Your task to perform on an android device: change keyboard looks Image 0: 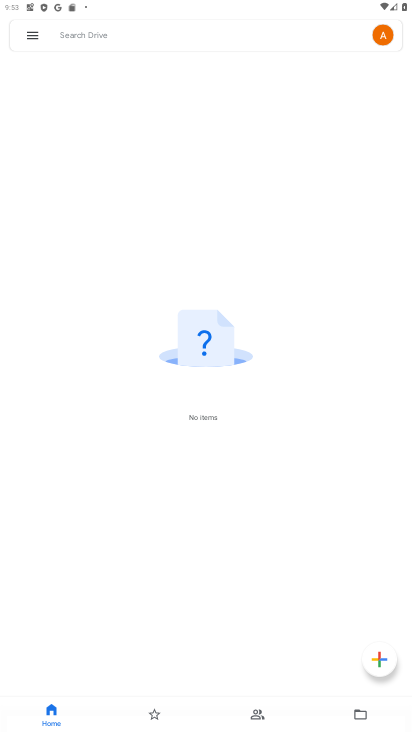
Step 0: press home button
Your task to perform on an android device: change keyboard looks Image 1: 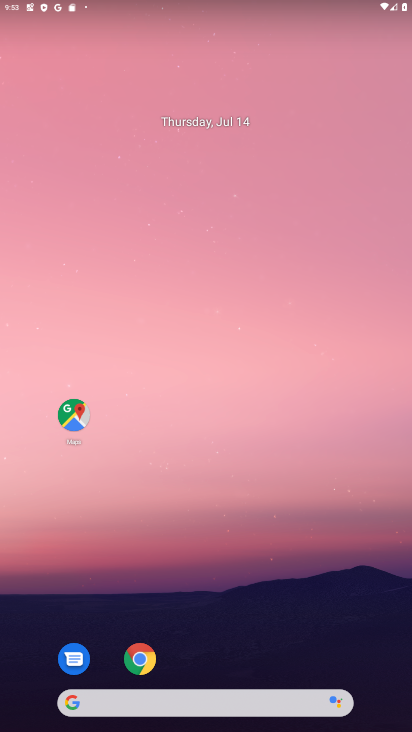
Step 1: drag from (267, 570) to (252, 3)
Your task to perform on an android device: change keyboard looks Image 2: 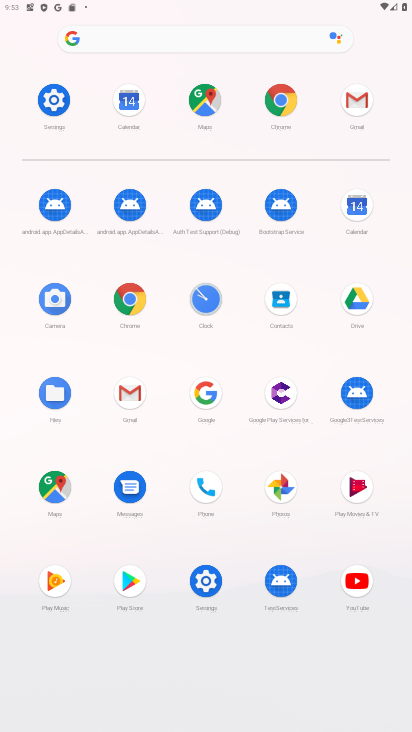
Step 2: click (56, 101)
Your task to perform on an android device: change keyboard looks Image 3: 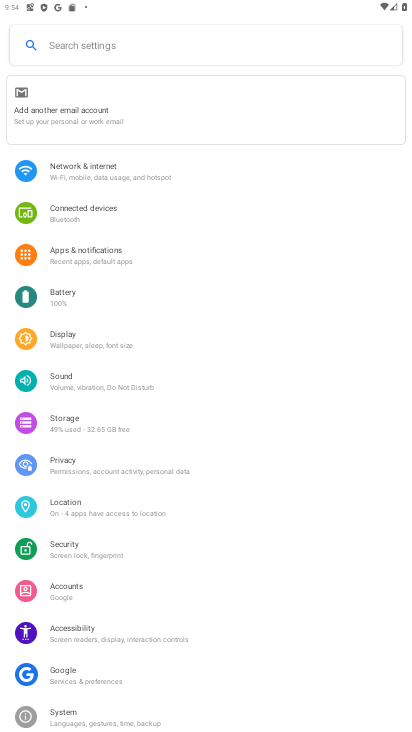
Step 3: drag from (106, 582) to (137, 226)
Your task to perform on an android device: change keyboard looks Image 4: 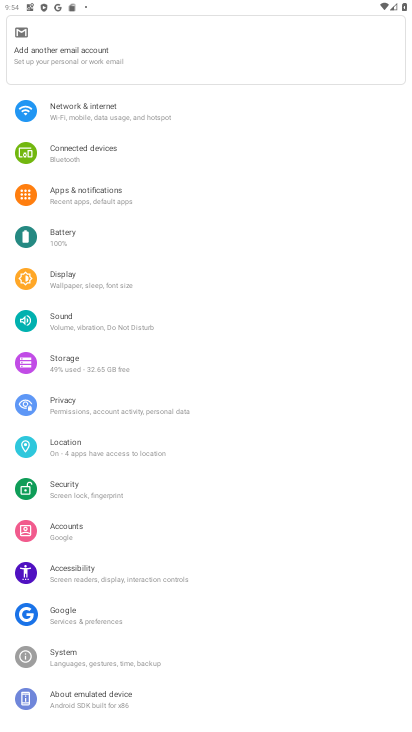
Step 4: click (66, 666)
Your task to perform on an android device: change keyboard looks Image 5: 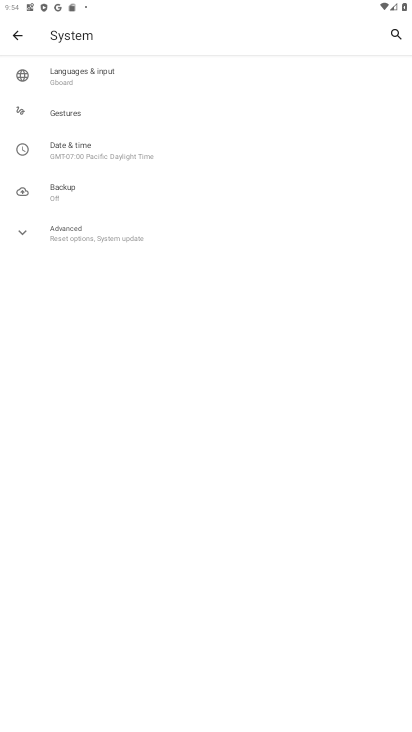
Step 5: click (95, 68)
Your task to perform on an android device: change keyboard looks Image 6: 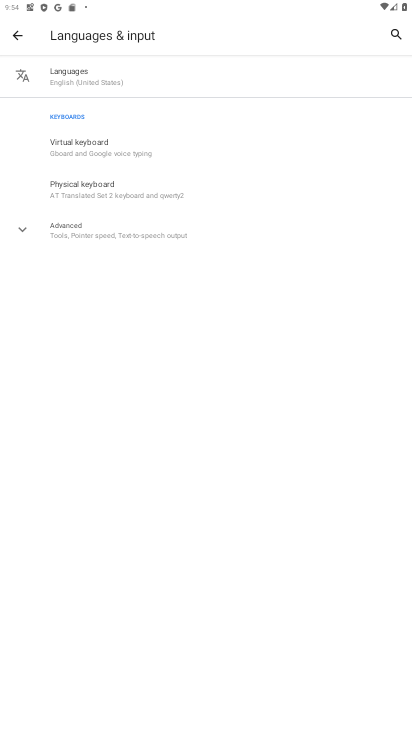
Step 6: click (84, 152)
Your task to perform on an android device: change keyboard looks Image 7: 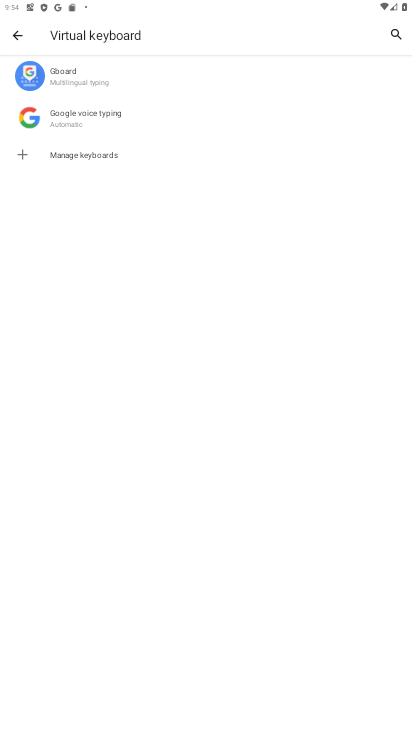
Step 7: click (84, 82)
Your task to perform on an android device: change keyboard looks Image 8: 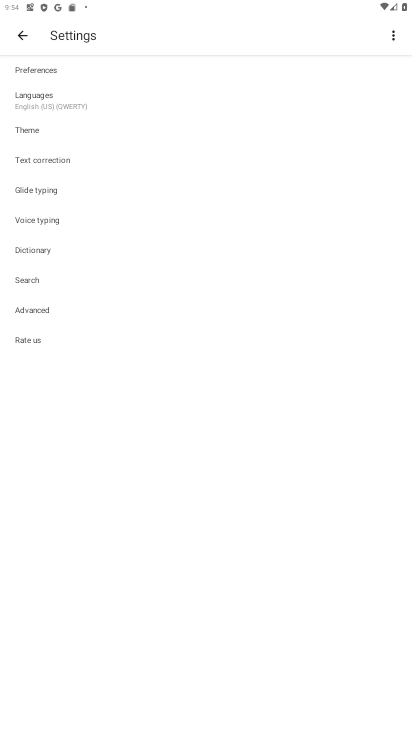
Step 8: click (20, 128)
Your task to perform on an android device: change keyboard looks Image 9: 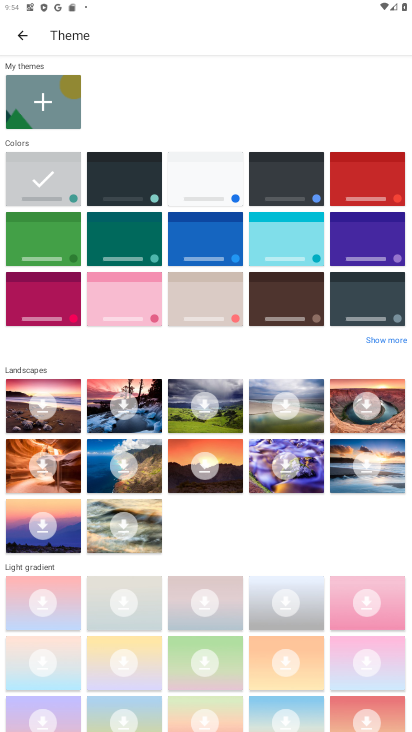
Step 9: click (197, 182)
Your task to perform on an android device: change keyboard looks Image 10: 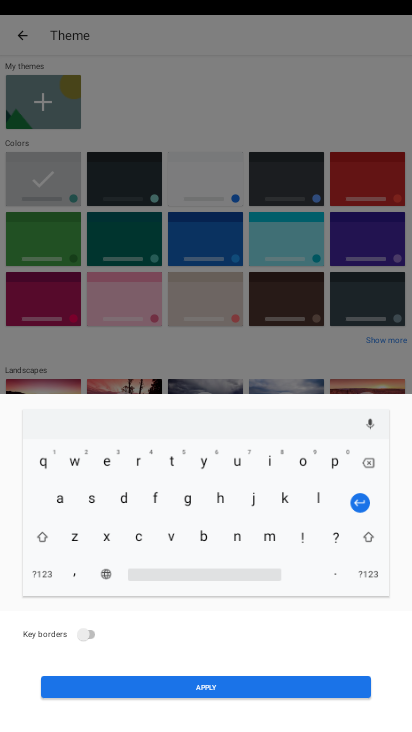
Step 10: click (319, 690)
Your task to perform on an android device: change keyboard looks Image 11: 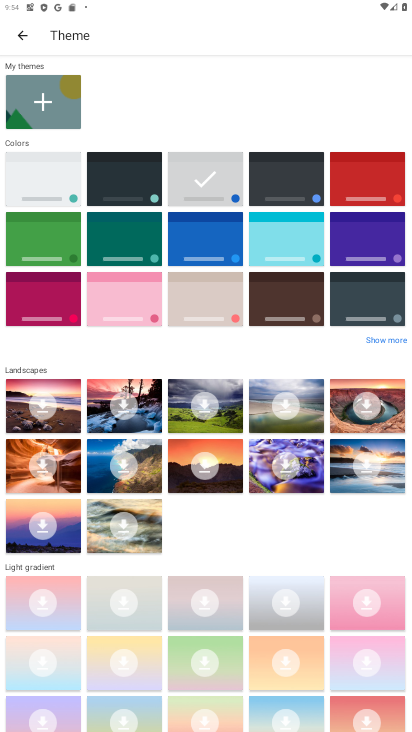
Step 11: task complete